Your task to perform on an android device: read, delete, or share a saved page in the chrome app Image 0: 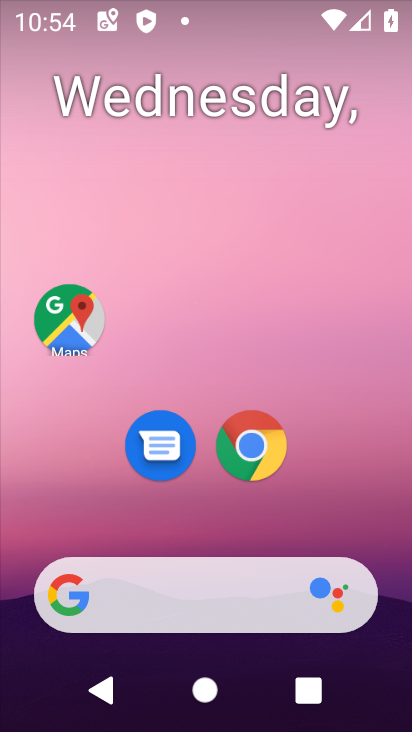
Step 0: click (243, 467)
Your task to perform on an android device: read, delete, or share a saved page in the chrome app Image 1: 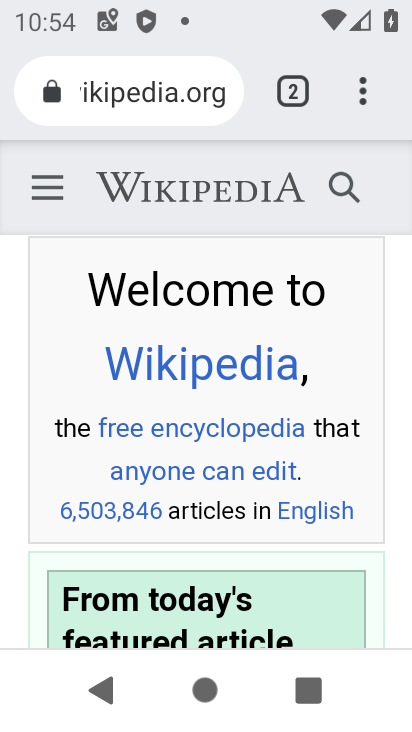
Step 1: drag from (360, 97) to (132, 249)
Your task to perform on an android device: read, delete, or share a saved page in the chrome app Image 2: 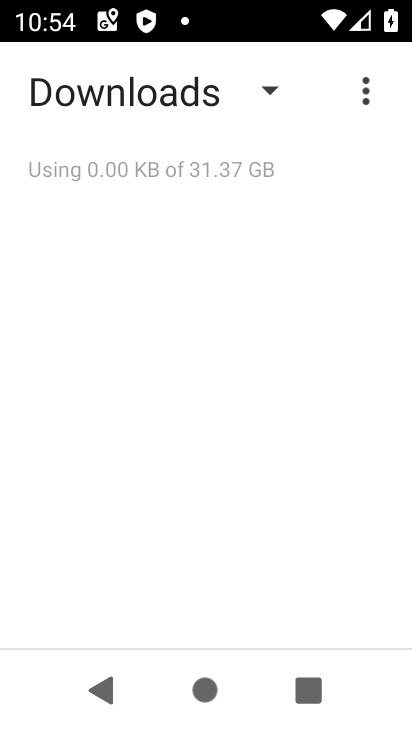
Step 2: click (267, 97)
Your task to perform on an android device: read, delete, or share a saved page in the chrome app Image 3: 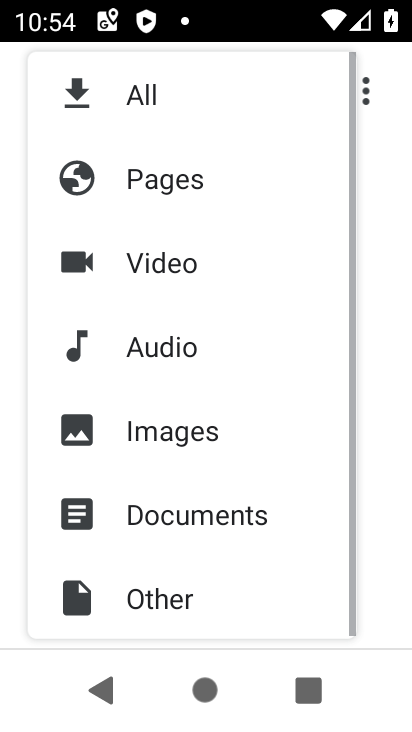
Step 3: click (140, 183)
Your task to perform on an android device: read, delete, or share a saved page in the chrome app Image 4: 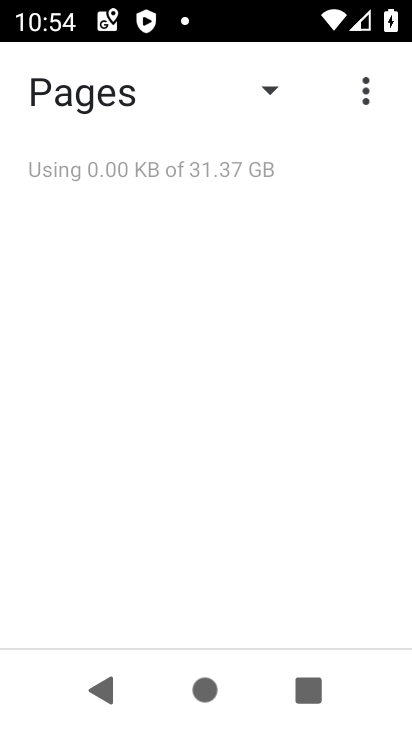
Step 4: task complete